Your task to perform on an android device: open chrome and create a bookmark for the current page Image 0: 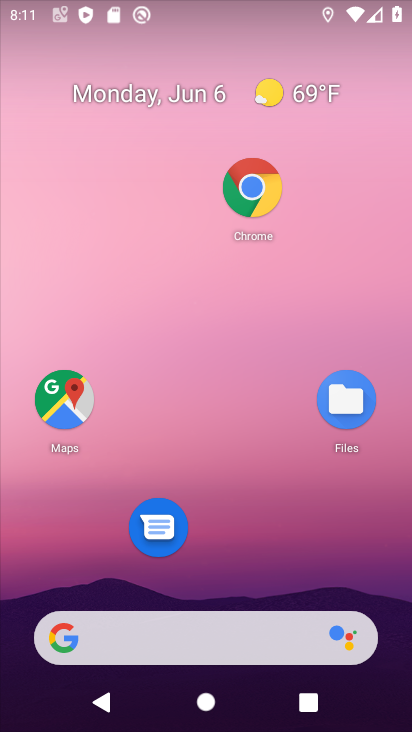
Step 0: click (254, 194)
Your task to perform on an android device: open chrome and create a bookmark for the current page Image 1: 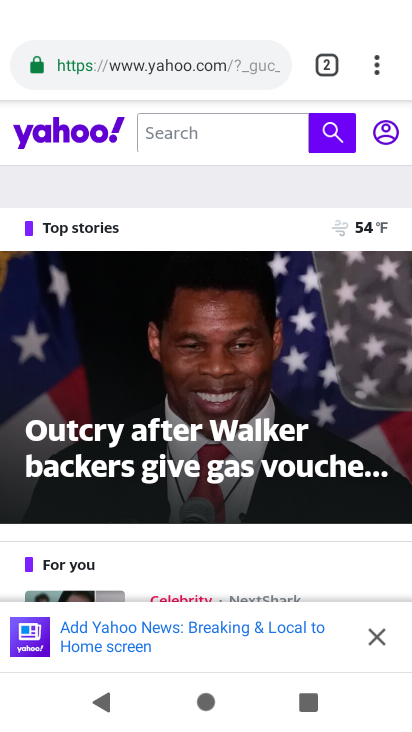
Step 1: click (372, 68)
Your task to perform on an android device: open chrome and create a bookmark for the current page Image 2: 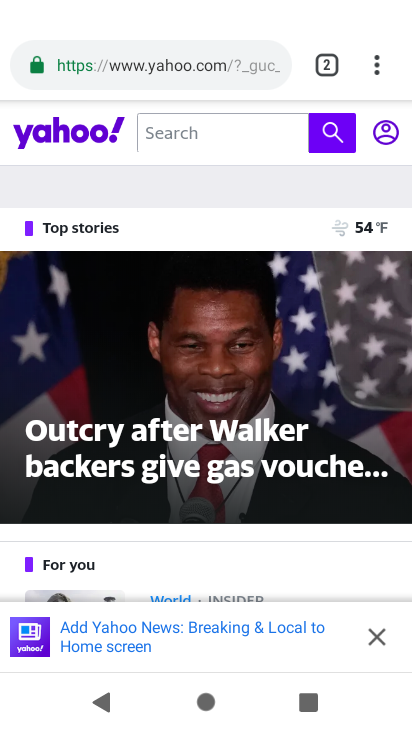
Step 2: click (372, 68)
Your task to perform on an android device: open chrome and create a bookmark for the current page Image 3: 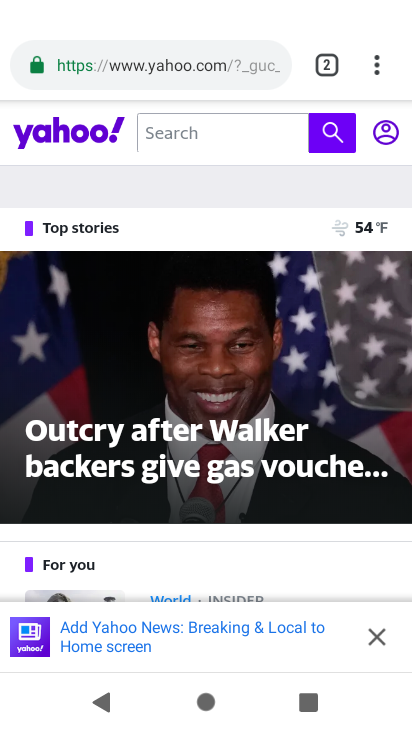
Step 3: click (366, 62)
Your task to perform on an android device: open chrome and create a bookmark for the current page Image 4: 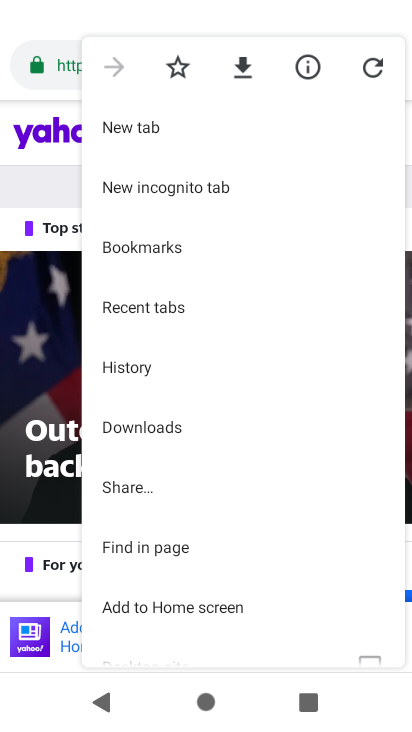
Step 4: click (180, 68)
Your task to perform on an android device: open chrome and create a bookmark for the current page Image 5: 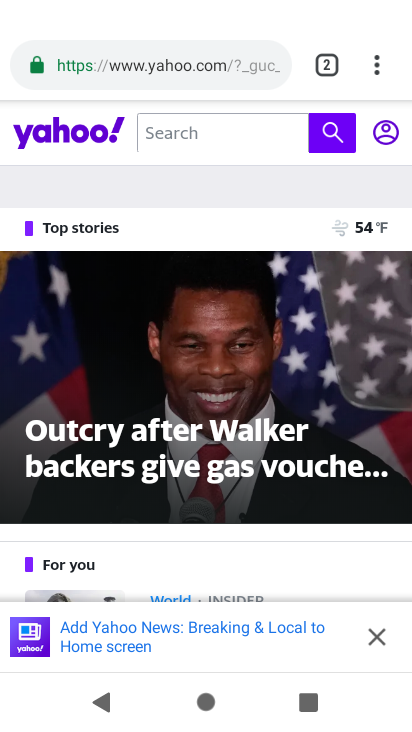
Step 5: task complete